Your task to perform on an android device: turn on improve location accuracy Image 0: 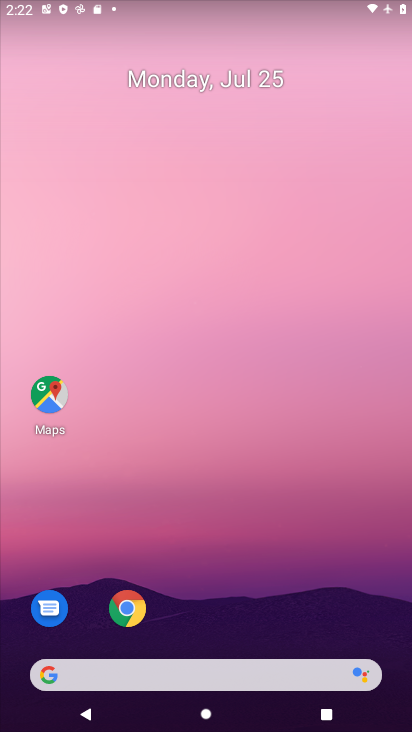
Step 0: press home button
Your task to perform on an android device: turn on improve location accuracy Image 1: 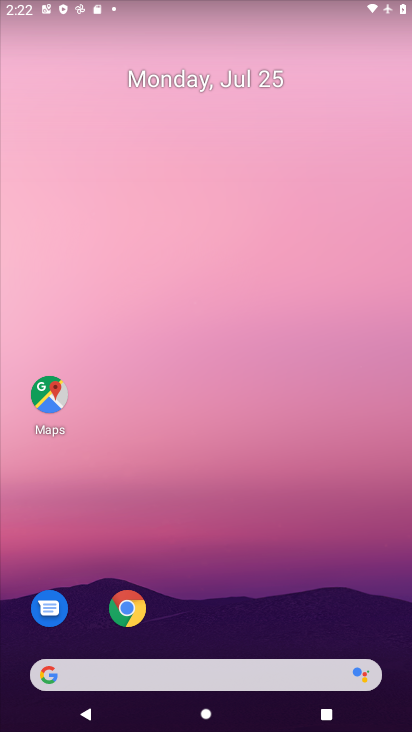
Step 1: drag from (248, 648) to (306, 233)
Your task to perform on an android device: turn on improve location accuracy Image 2: 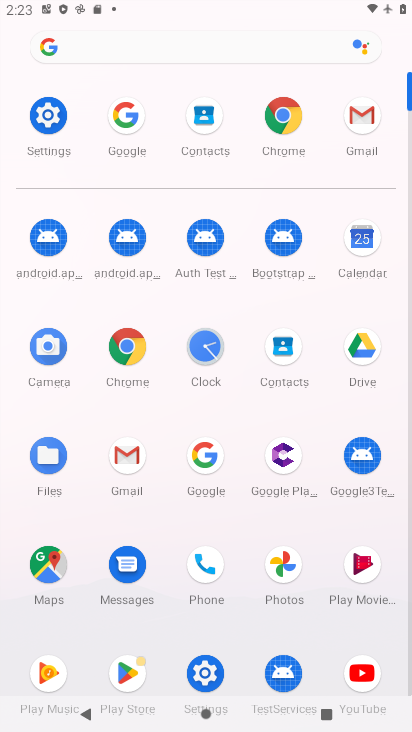
Step 2: click (52, 119)
Your task to perform on an android device: turn on improve location accuracy Image 3: 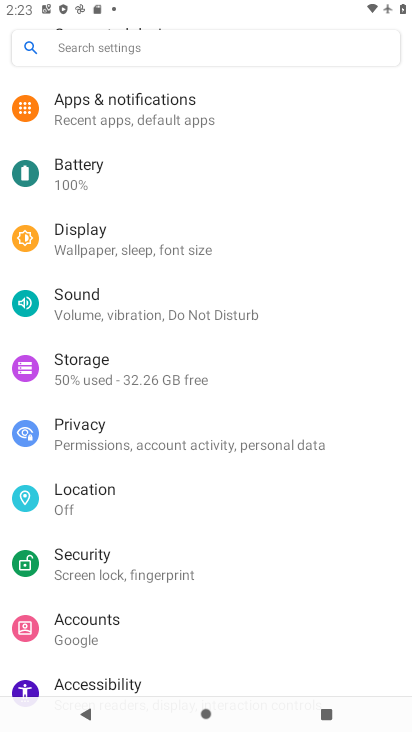
Step 3: click (99, 499)
Your task to perform on an android device: turn on improve location accuracy Image 4: 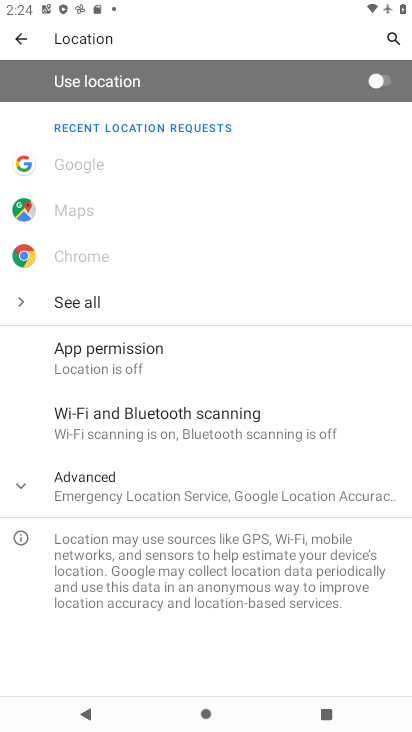
Step 4: click (141, 482)
Your task to perform on an android device: turn on improve location accuracy Image 5: 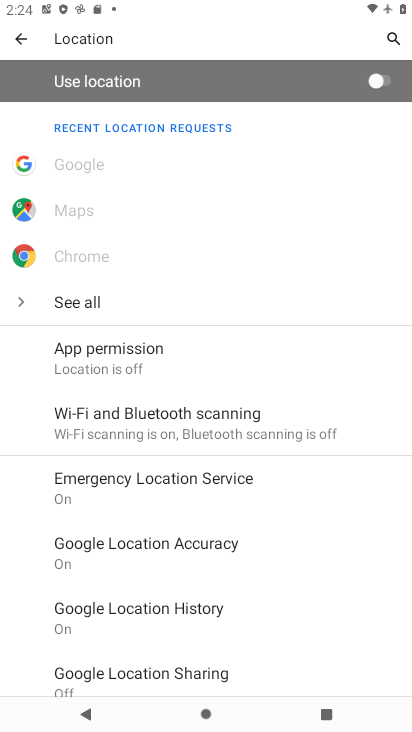
Step 5: click (167, 543)
Your task to perform on an android device: turn on improve location accuracy Image 6: 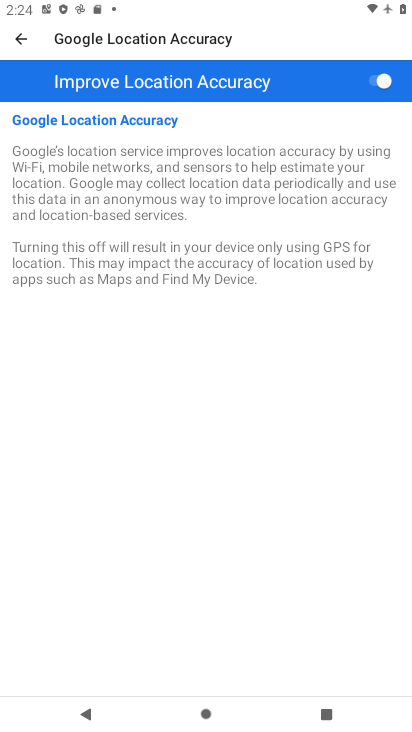
Step 6: task complete